Your task to perform on an android device: Search for vegetarian restaurants on Maps Image 0: 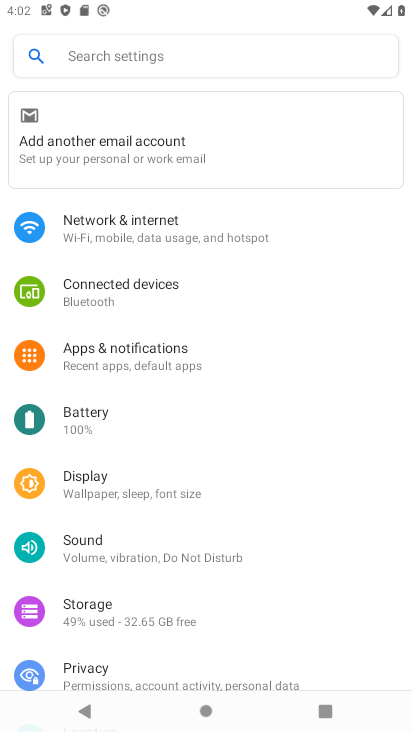
Step 0: press home button
Your task to perform on an android device: Search for vegetarian restaurants on Maps Image 1: 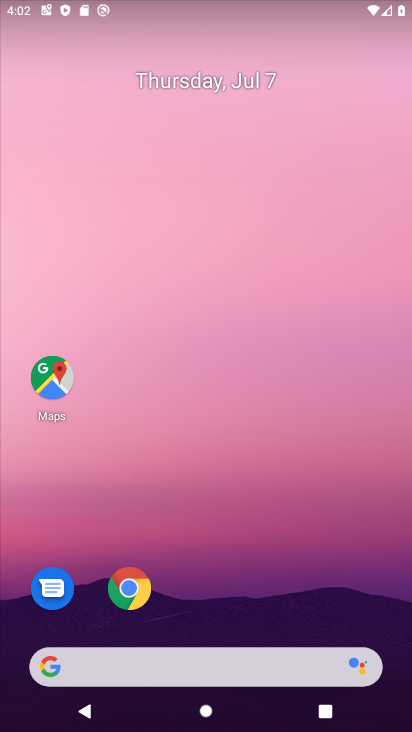
Step 1: drag from (241, 626) to (84, 53)
Your task to perform on an android device: Search for vegetarian restaurants on Maps Image 2: 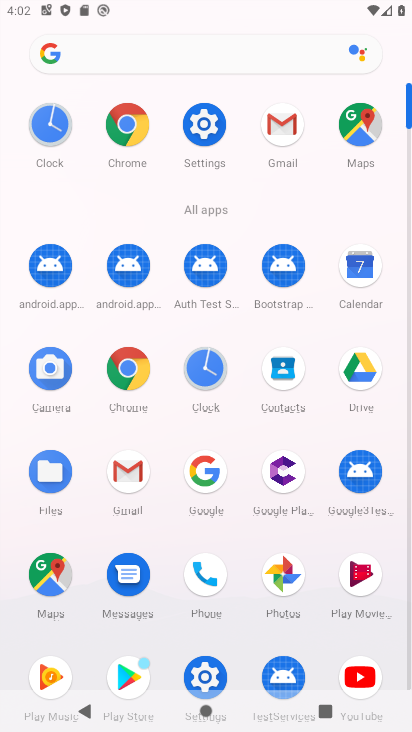
Step 2: click (362, 122)
Your task to perform on an android device: Search for vegetarian restaurants on Maps Image 3: 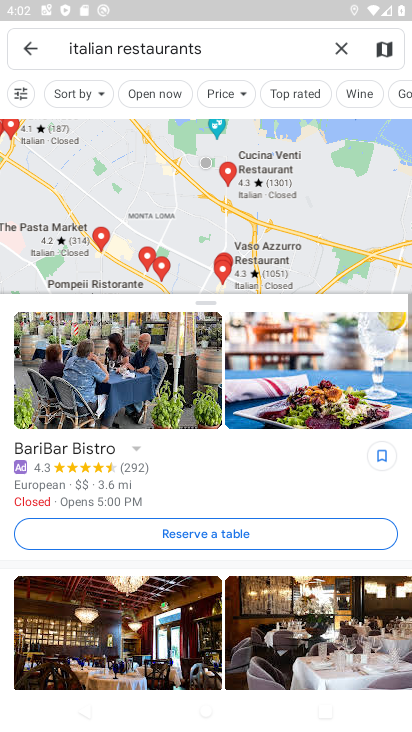
Step 3: click (339, 49)
Your task to perform on an android device: Search for vegetarian restaurants on Maps Image 4: 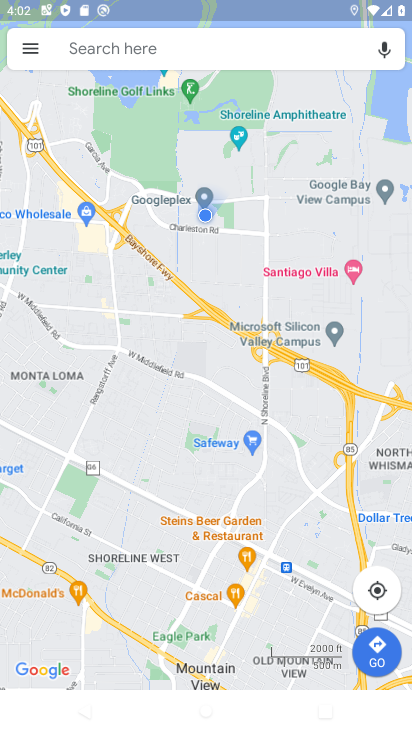
Step 4: click (226, 51)
Your task to perform on an android device: Search for vegetarian restaurants on Maps Image 5: 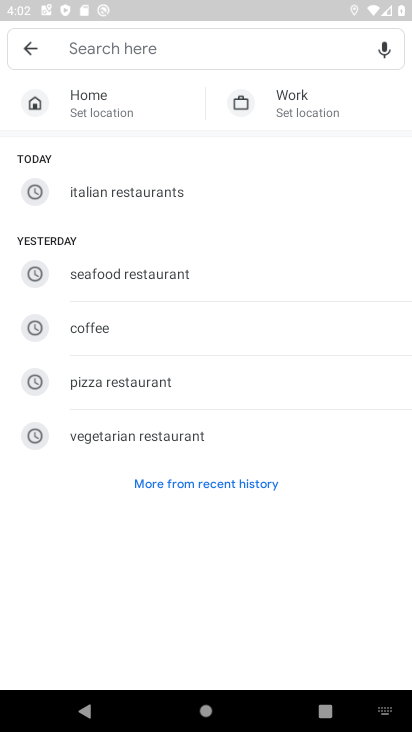
Step 5: click (152, 437)
Your task to perform on an android device: Search for vegetarian restaurants on Maps Image 6: 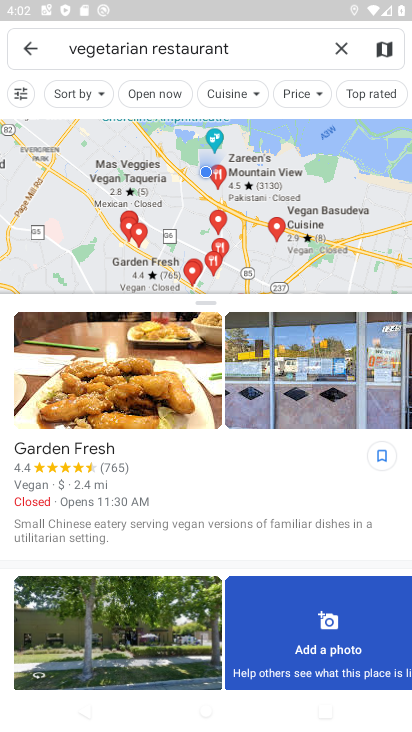
Step 6: task complete